Your task to perform on an android device: Open Google Image 0: 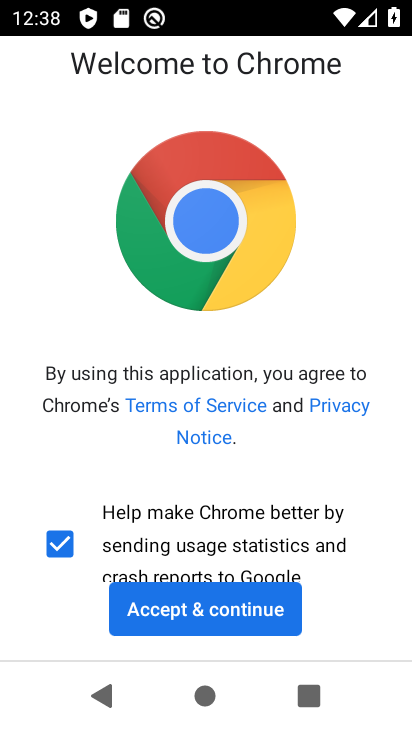
Step 0: press home button
Your task to perform on an android device: Open Google Image 1: 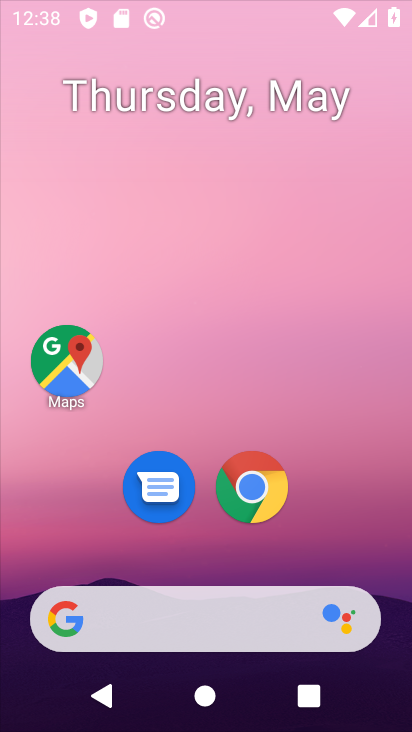
Step 1: drag from (256, 549) to (334, 99)
Your task to perform on an android device: Open Google Image 2: 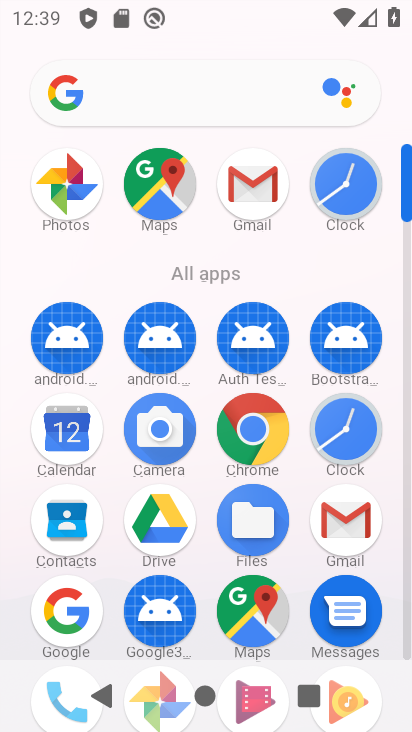
Step 2: click (67, 614)
Your task to perform on an android device: Open Google Image 3: 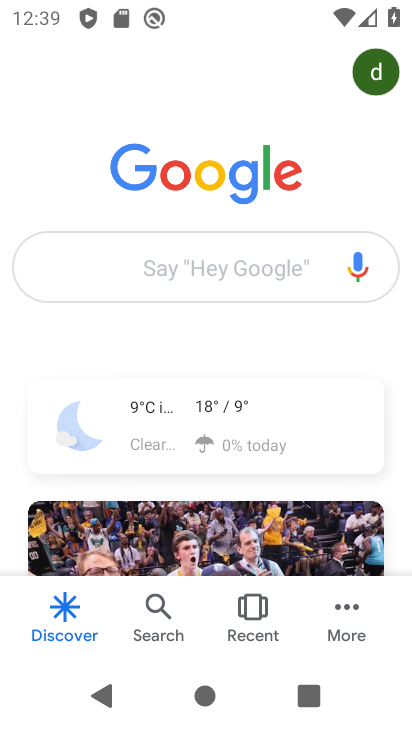
Step 3: task complete